Your task to perform on an android device: check battery use Image 0: 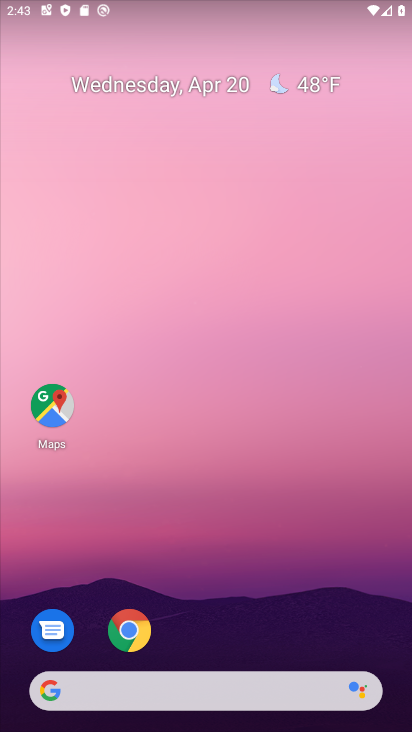
Step 0: drag from (300, 724) to (196, 80)
Your task to perform on an android device: check battery use Image 1: 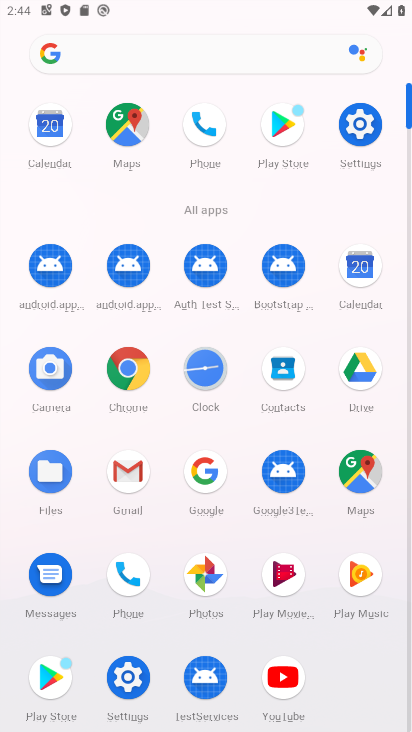
Step 1: click (355, 140)
Your task to perform on an android device: check battery use Image 2: 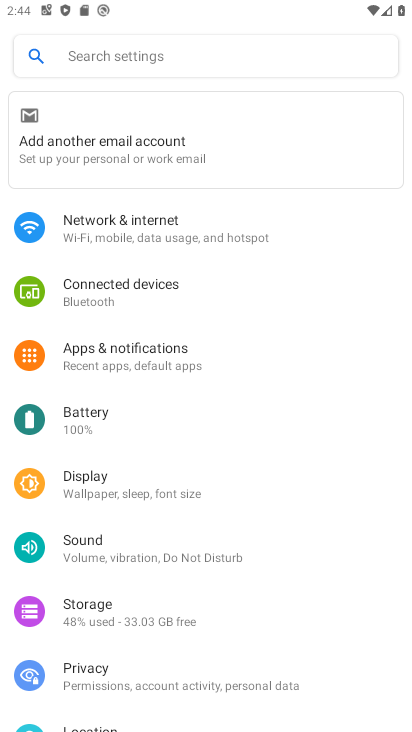
Step 2: click (159, 421)
Your task to perform on an android device: check battery use Image 3: 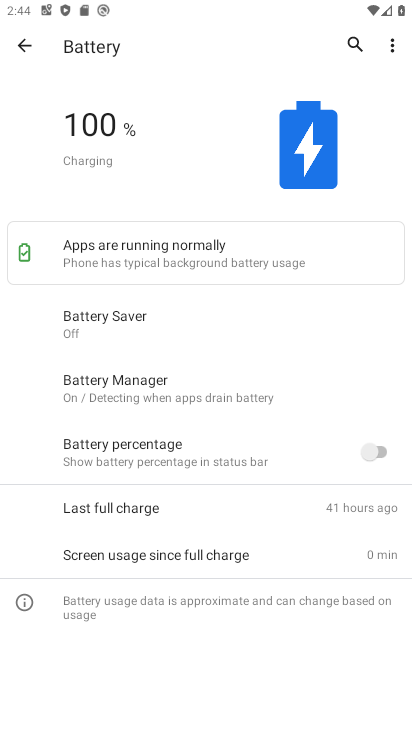
Step 3: click (390, 46)
Your task to perform on an android device: check battery use Image 4: 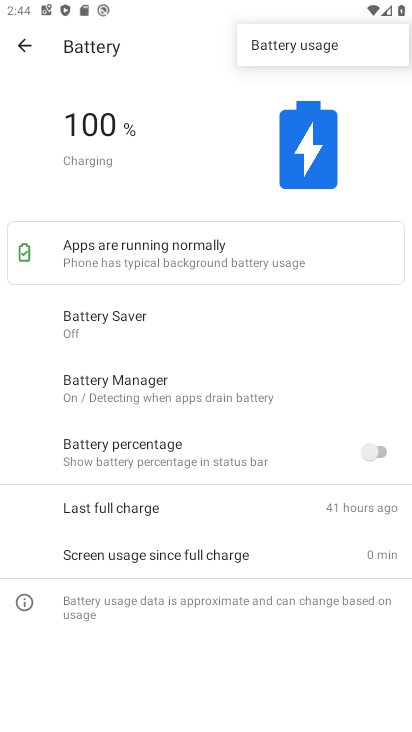
Step 4: click (370, 50)
Your task to perform on an android device: check battery use Image 5: 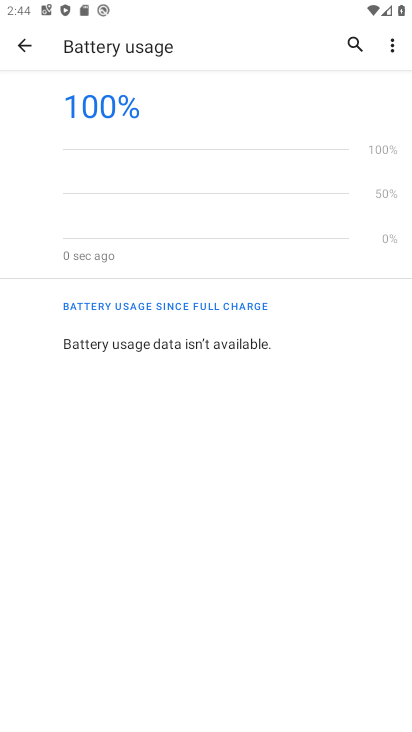
Step 5: task complete